Your task to perform on an android device: toggle pop-ups in chrome Image 0: 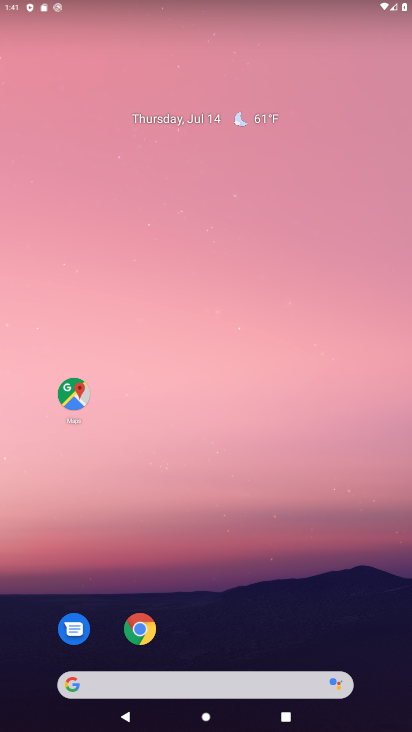
Step 0: click (129, 626)
Your task to perform on an android device: toggle pop-ups in chrome Image 1: 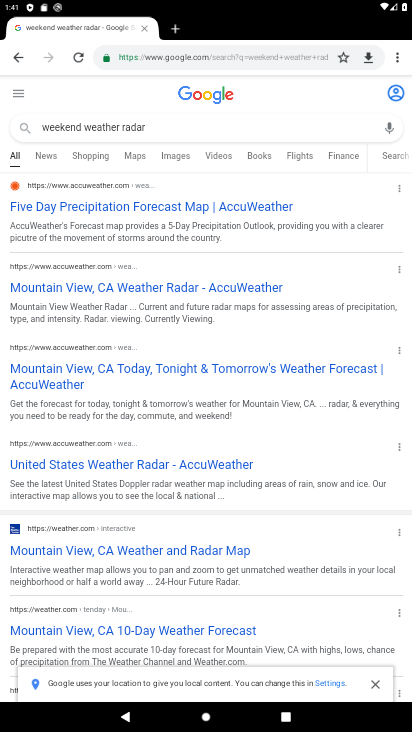
Step 1: click (392, 50)
Your task to perform on an android device: toggle pop-ups in chrome Image 2: 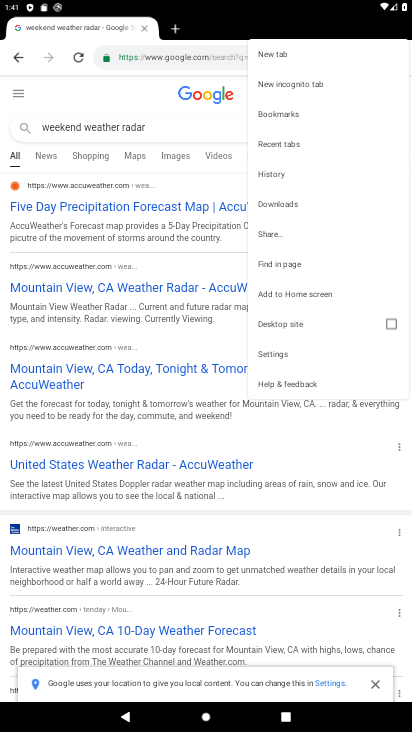
Step 2: click (294, 349)
Your task to perform on an android device: toggle pop-ups in chrome Image 3: 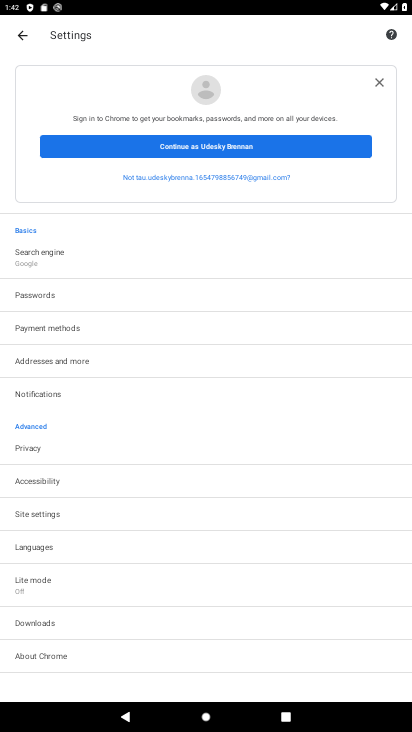
Step 3: click (45, 509)
Your task to perform on an android device: toggle pop-ups in chrome Image 4: 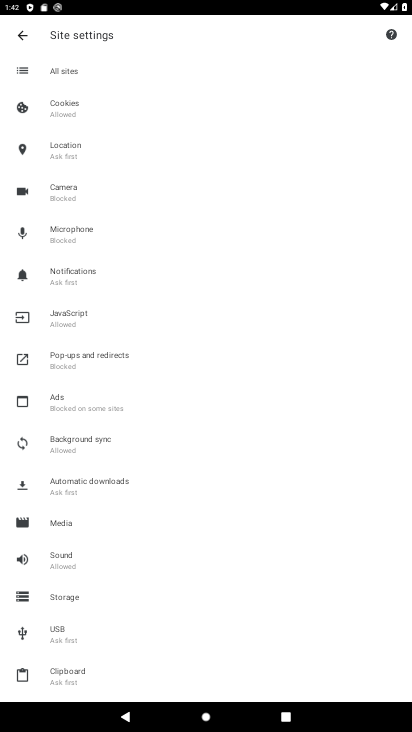
Step 4: click (123, 354)
Your task to perform on an android device: toggle pop-ups in chrome Image 5: 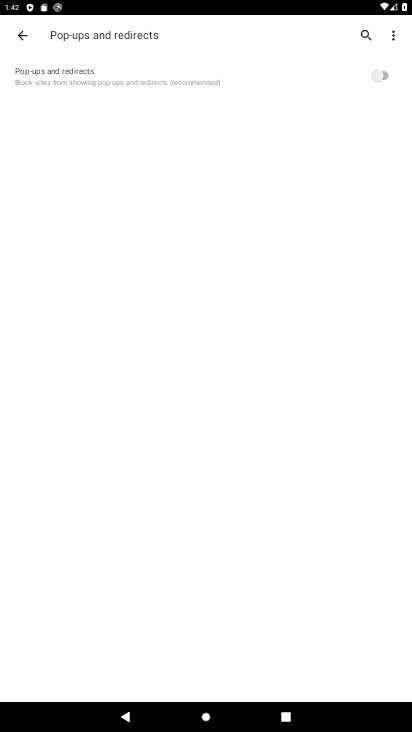
Step 5: click (378, 72)
Your task to perform on an android device: toggle pop-ups in chrome Image 6: 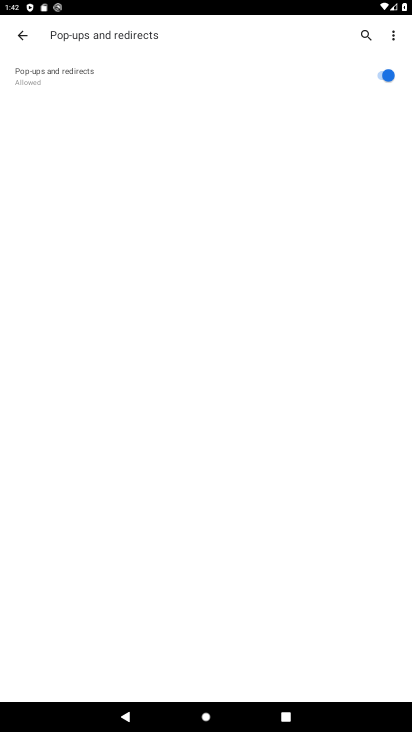
Step 6: task complete